Your task to perform on an android device: Open my contact list Image 0: 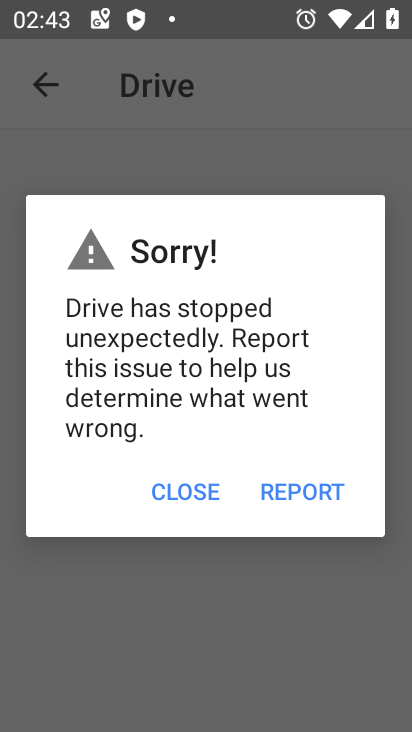
Step 0: press home button
Your task to perform on an android device: Open my contact list Image 1: 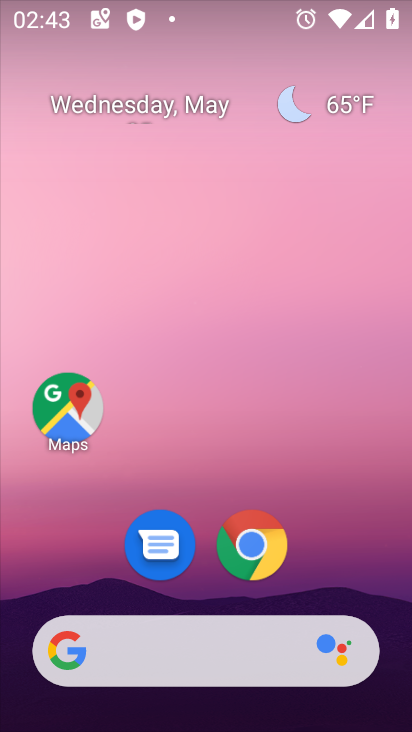
Step 1: drag from (343, 548) to (238, 37)
Your task to perform on an android device: Open my contact list Image 2: 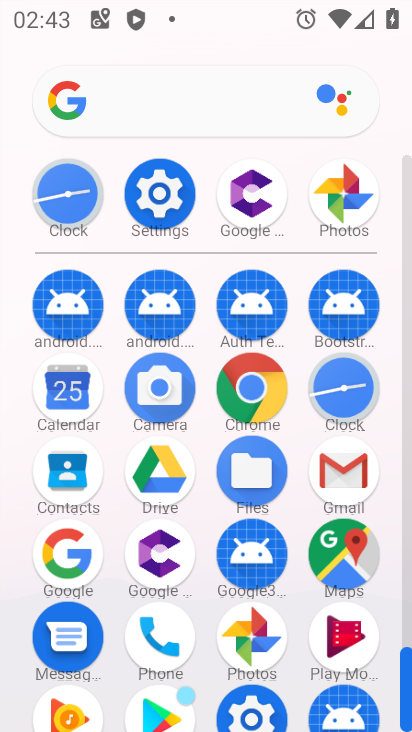
Step 2: click (68, 471)
Your task to perform on an android device: Open my contact list Image 3: 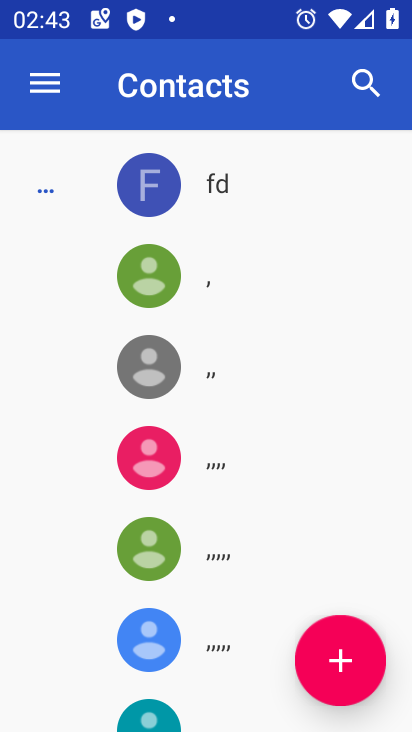
Step 3: task complete